Your task to perform on an android device: turn on translation in the chrome app Image 0: 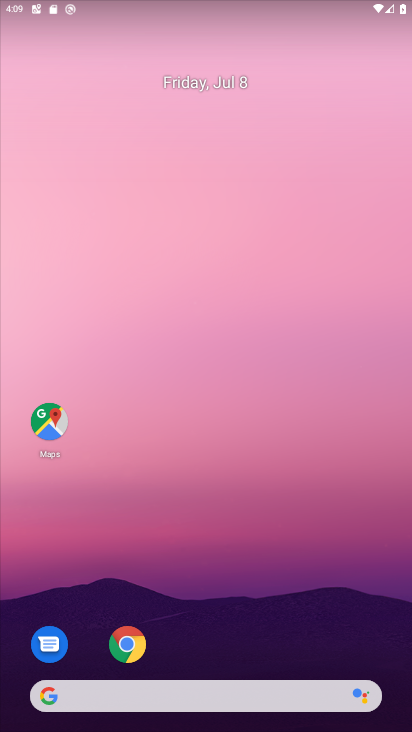
Step 0: click (128, 645)
Your task to perform on an android device: turn on translation in the chrome app Image 1: 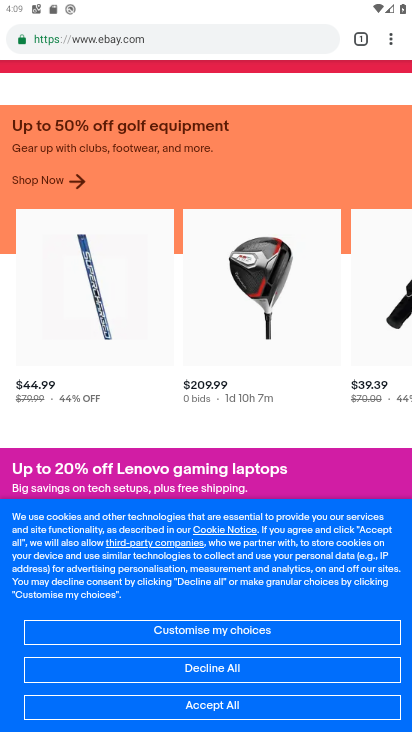
Step 1: click (391, 43)
Your task to perform on an android device: turn on translation in the chrome app Image 2: 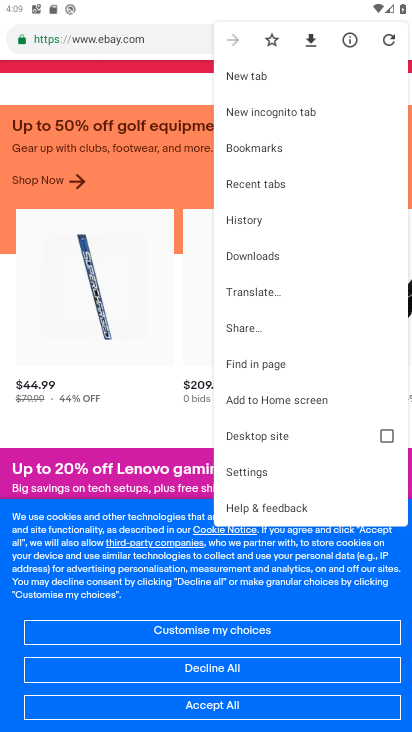
Step 2: click (248, 471)
Your task to perform on an android device: turn on translation in the chrome app Image 3: 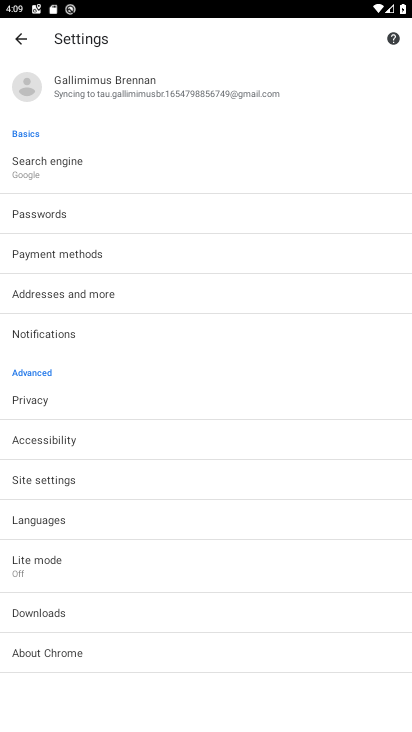
Step 3: click (44, 519)
Your task to perform on an android device: turn on translation in the chrome app Image 4: 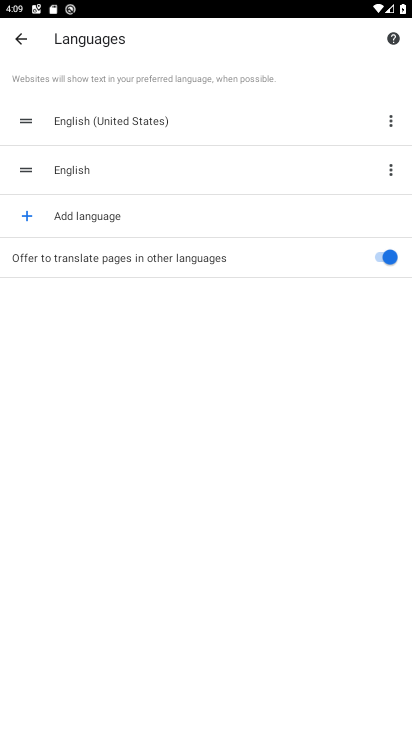
Step 4: task complete